Your task to perform on an android device: change the upload size in google photos Image 0: 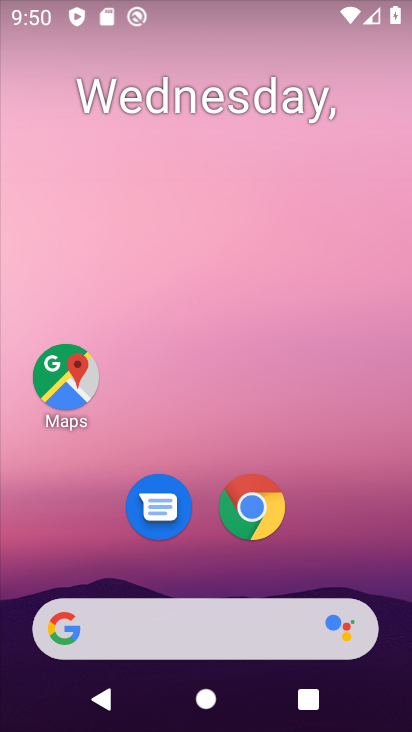
Step 0: drag from (274, 654) to (202, 239)
Your task to perform on an android device: change the upload size in google photos Image 1: 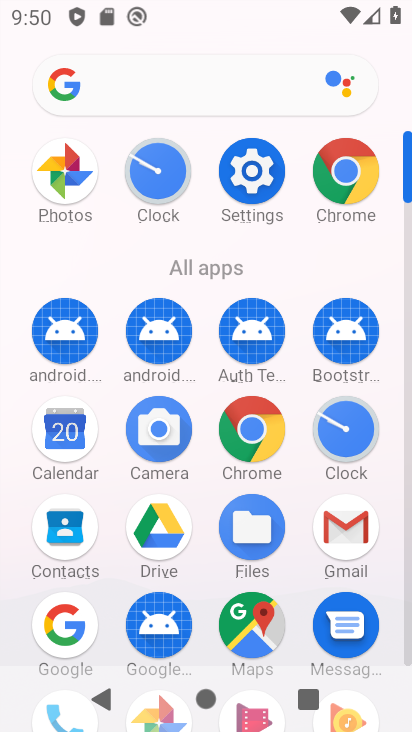
Step 1: drag from (204, 570) to (207, 424)
Your task to perform on an android device: change the upload size in google photos Image 2: 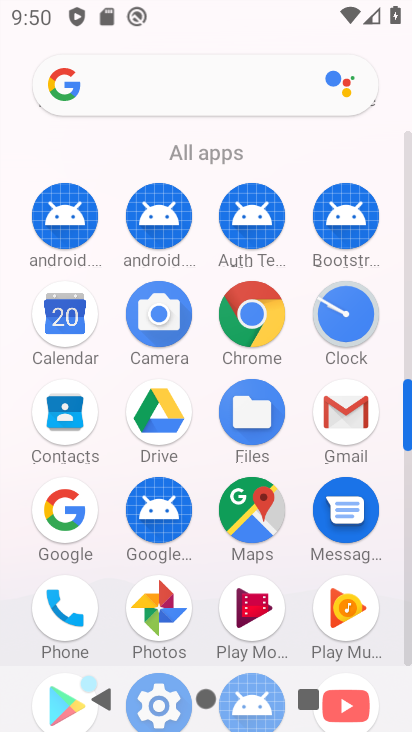
Step 2: click (174, 604)
Your task to perform on an android device: change the upload size in google photos Image 3: 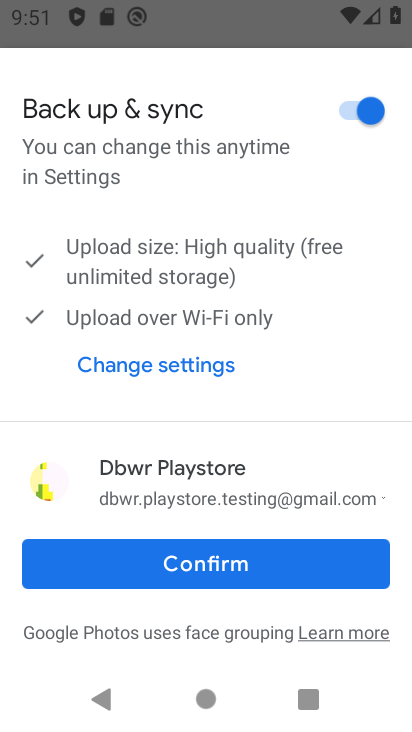
Step 3: click (172, 570)
Your task to perform on an android device: change the upload size in google photos Image 4: 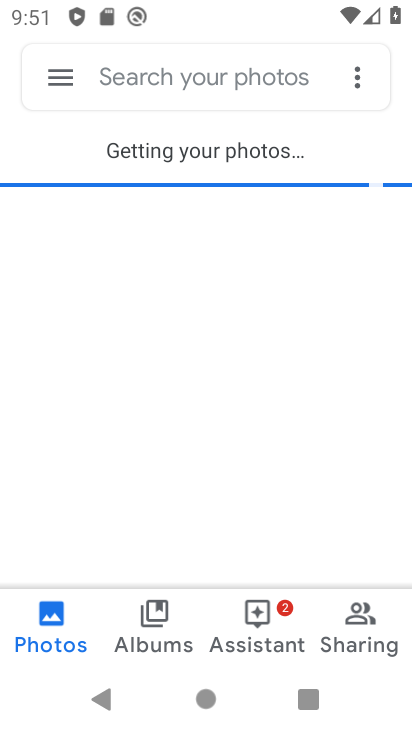
Step 4: click (69, 81)
Your task to perform on an android device: change the upload size in google photos Image 5: 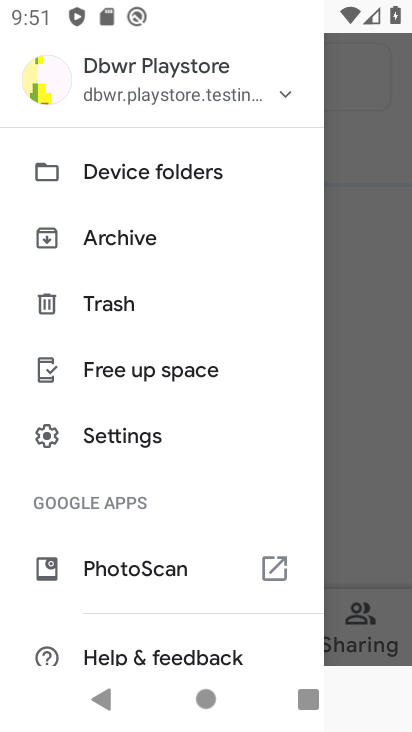
Step 5: click (101, 444)
Your task to perform on an android device: change the upload size in google photos Image 6: 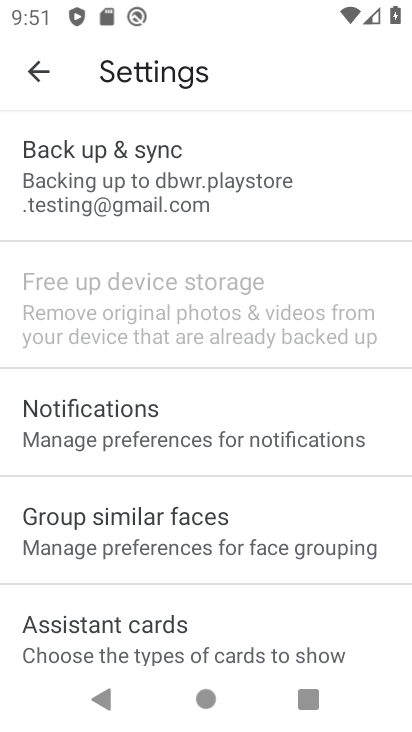
Step 6: click (159, 200)
Your task to perform on an android device: change the upload size in google photos Image 7: 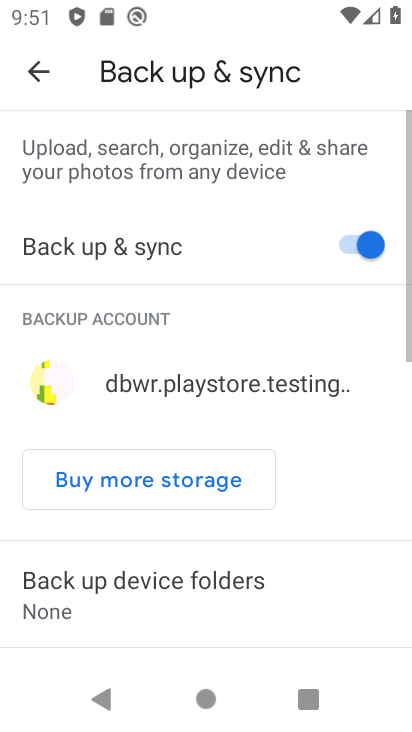
Step 7: drag from (147, 549) to (153, 322)
Your task to perform on an android device: change the upload size in google photos Image 8: 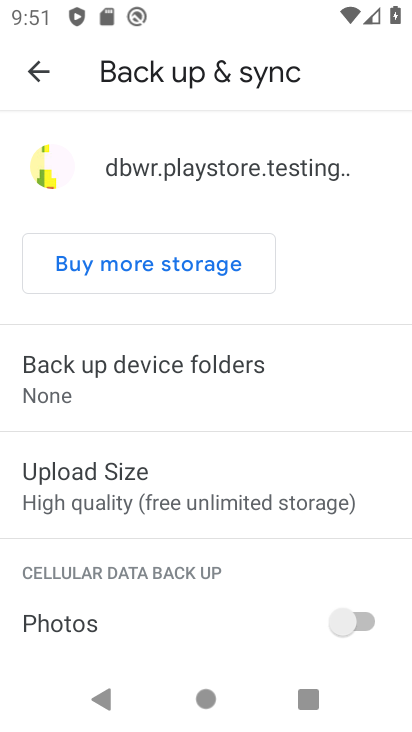
Step 8: click (93, 471)
Your task to perform on an android device: change the upload size in google photos Image 9: 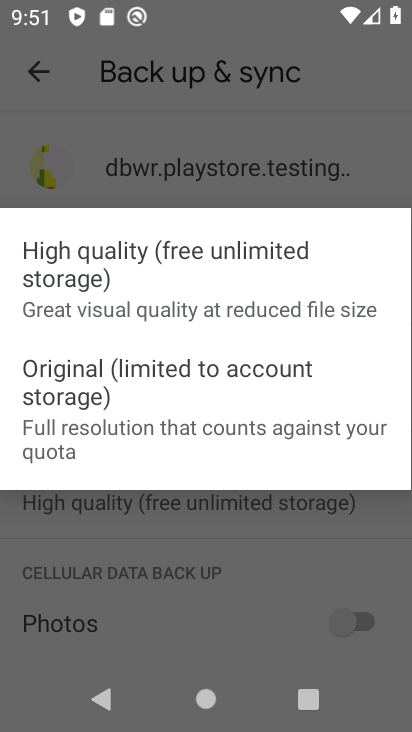
Step 9: task complete